Your task to perform on an android device: Open calendar and show me the first week of next month Image 0: 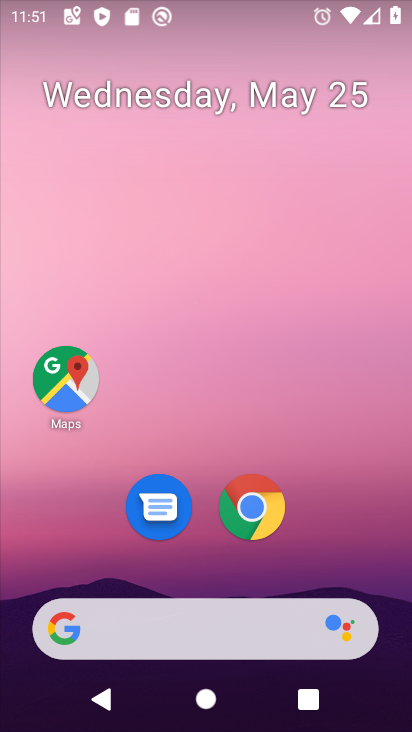
Step 0: drag from (331, 559) to (239, 90)
Your task to perform on an android device: Open calendar and show me the first week of next month Image 1: 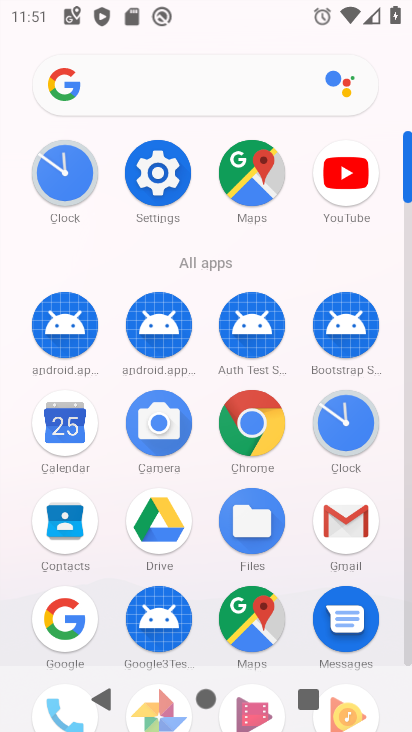
Step 1: click (66, 428)
Your task to perform on an android device: Open calendar and show me the first week of next month Image 2: 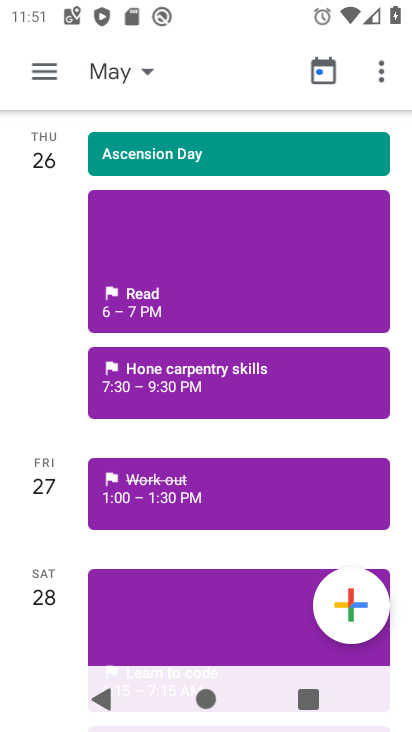
Step 2: click (324, 69)
Your task to perform on an android device: Open calendar and show me the first week of next month Image 3: 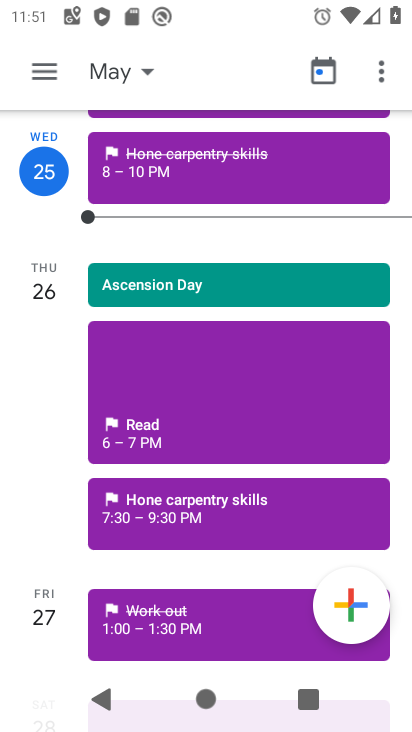
Step 3: click (143, 72)
Your task to perform on an android device: Open calendar and show me the first week of next month Image 4: 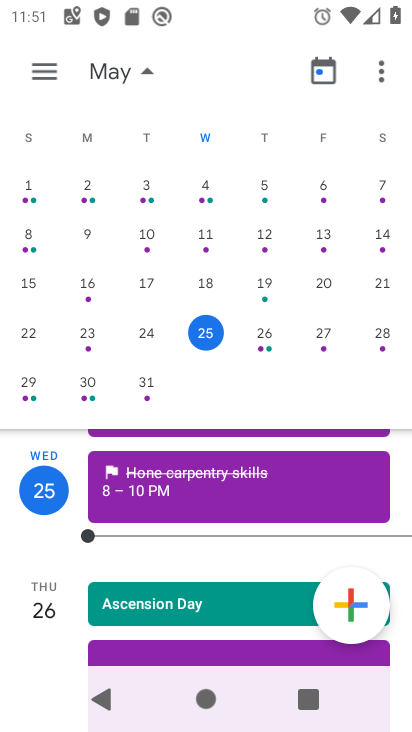
Step 4: drag from (362, 301) to (5, 309)
Your task to perform on an android device: Open calendar and show me the first week of next month Image 5: 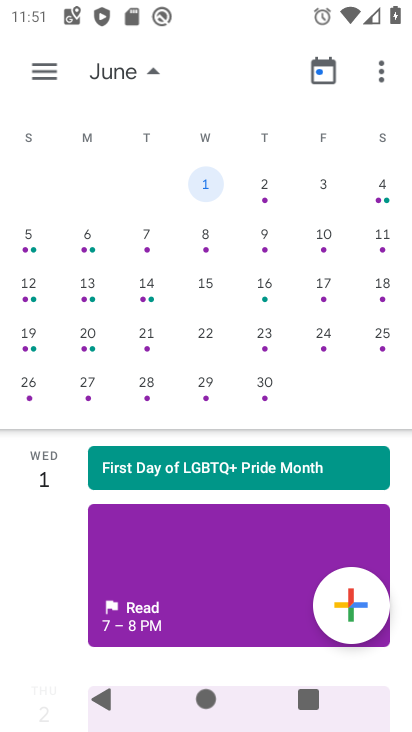
Step 5: click (91, 234)
Your task to perform on an android device: Open calendar and show me the first week of next month Image 6: 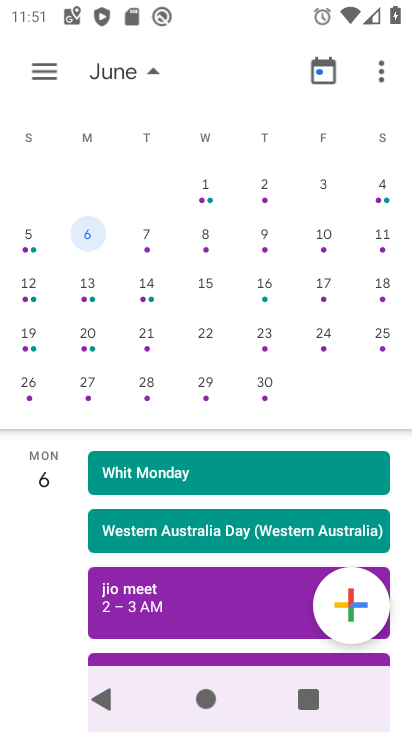
Step 6: click (41, 72)
Your task to perform on an android device: Open calendar and show me the first week of next month Image 7: 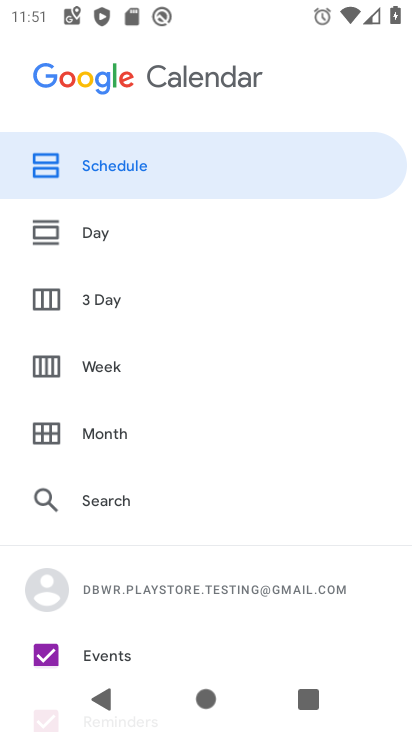
Step 7: click (108, 372)
Your task to perform on an android device: Open calendar and show me the first week of next month Image 8: 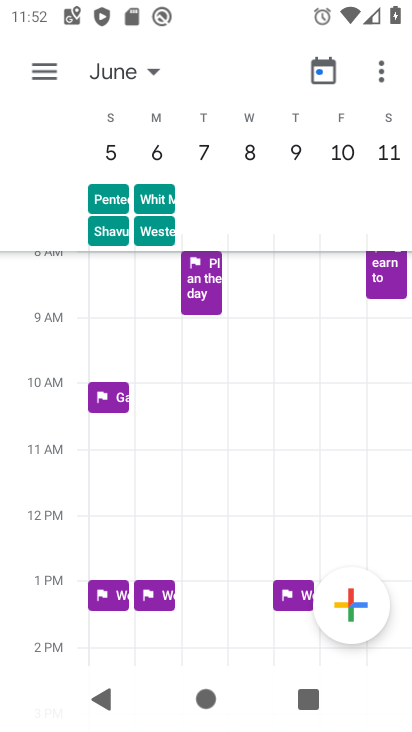
Step 8: task complete